Your task to perform on an android device: move an email to a new category in the gmail app Image 0: 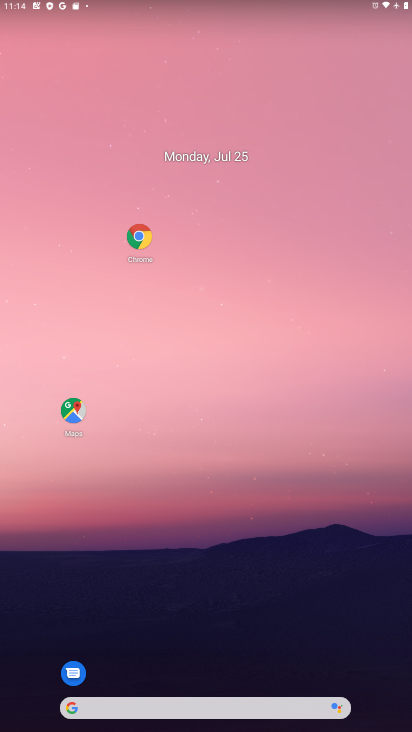
Step 0: drag from (273, 655) to (304, 238)
Your task to perform on an android device: move an email to a new category in the gmail app Image 1: 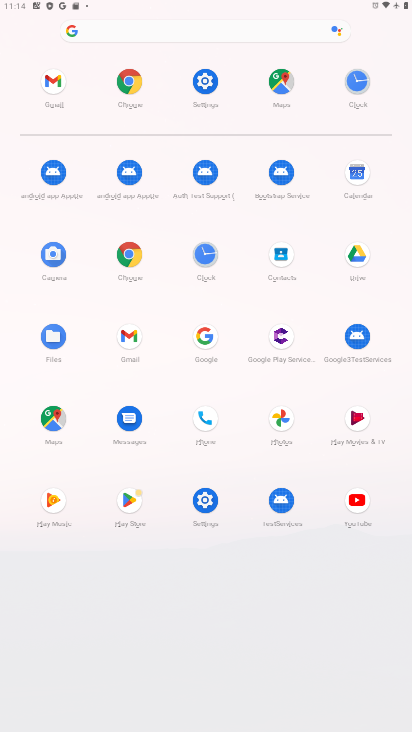
Step 1: click (35, 90)
Your task to perform on an android device: move an email to a new category in the gmail app Image 2: 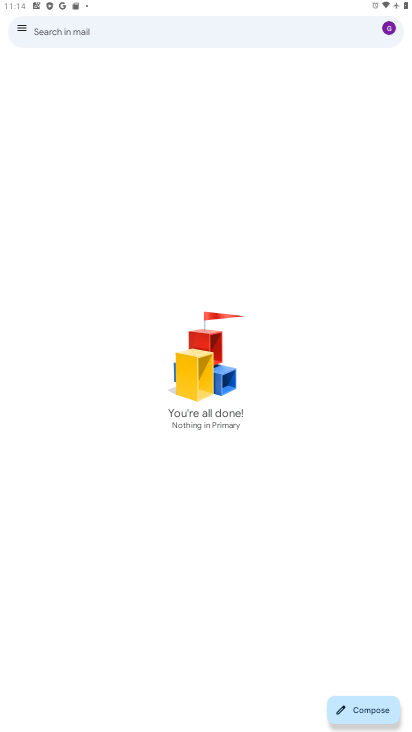
Step 2: task complete